Your task to perform on an android device: Open battery settings Image 0: 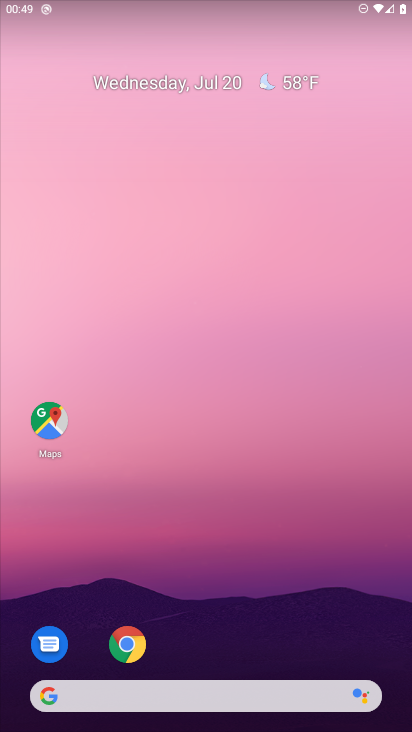
Step 0: drag from (28, 673) to (128, 196)
Your task to perform on an android device: Open battery settings Image 1: 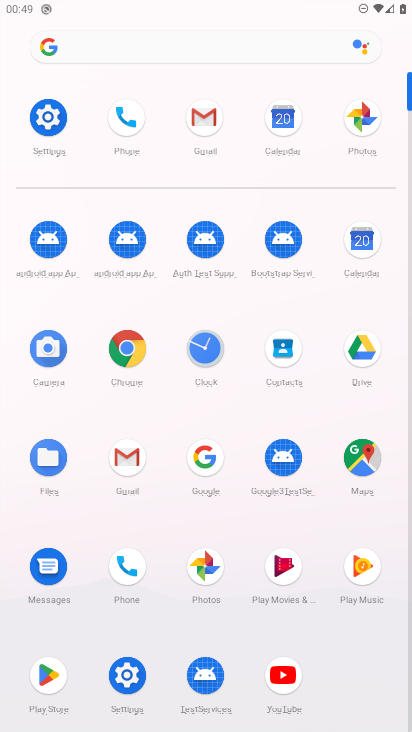
Step 1: click (127, 676)
Your task to perform on an android device: Open battery settings Image 2: 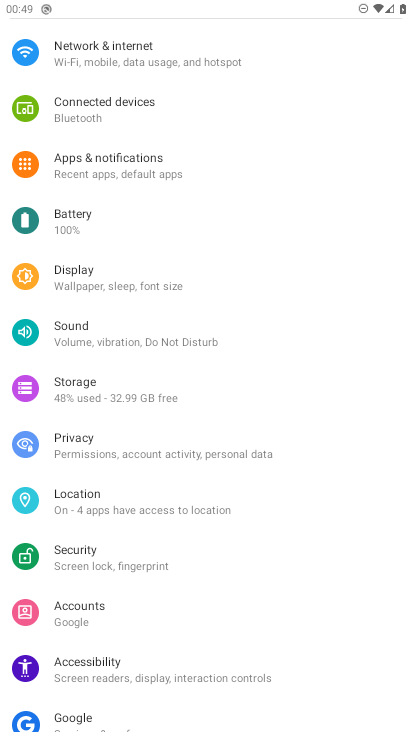
Step 2: click (84, 223)
Your task to perform on an android device: Open battery settings Image 3: 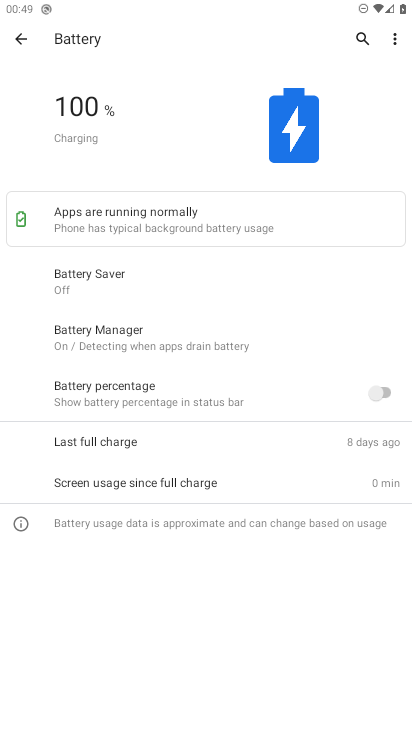
Step 3: task complete